Your task to perform on an android device: turn off data saver in the chrome app Image 0: 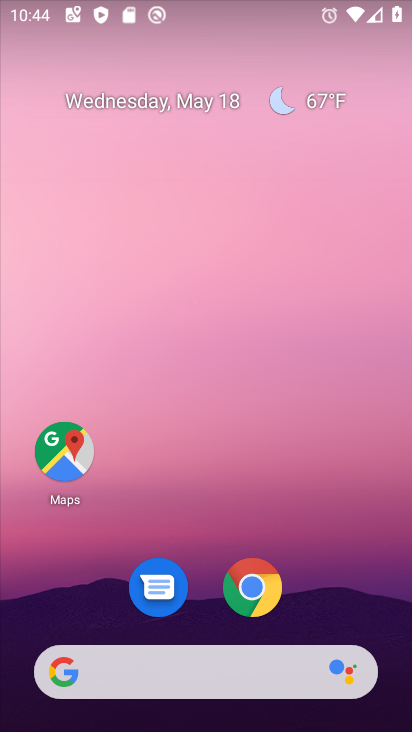
Step 0: click (257, 592)
Your task to perform on an android device: turn off data saver in the chrome app Image 1: 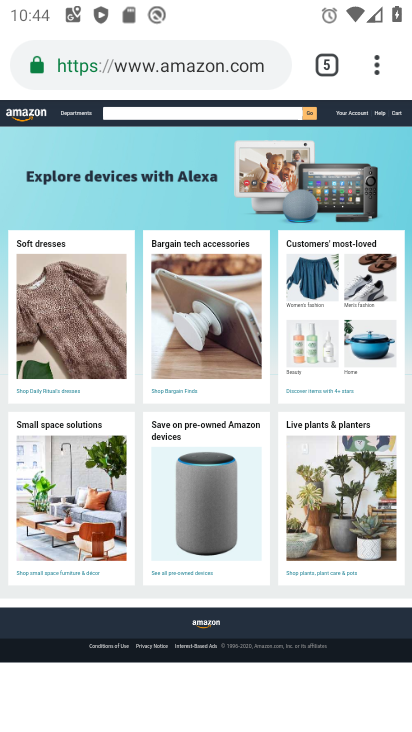
Step 1: click (385, 63)
Your task to perform on an android device: turn off data saver in the chrome app Image 2: 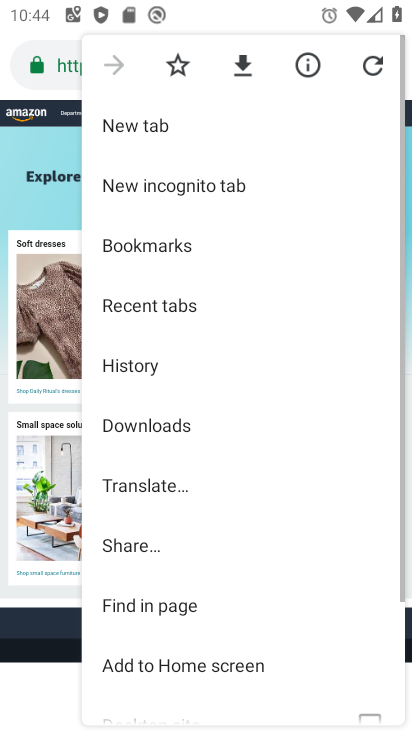
Step 2: drag from (245, 624) to (216, 137)
Your task to perform on an android device: turn off data saver in the chrome app Image 3: 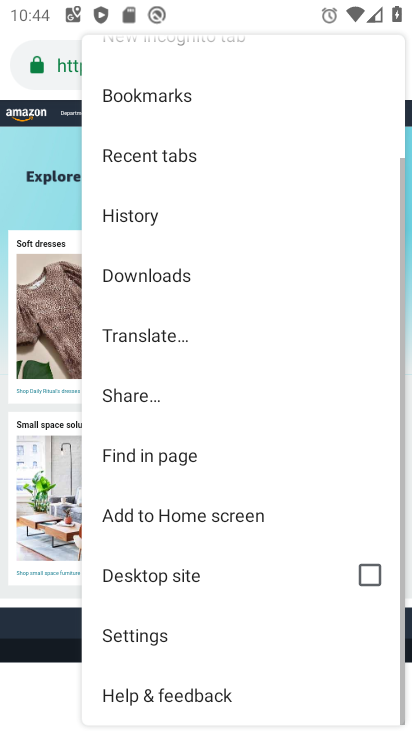
Step 3: click (188, 625)
Your task to perform on an android device: turn off data saver in the chrome app Image 4: 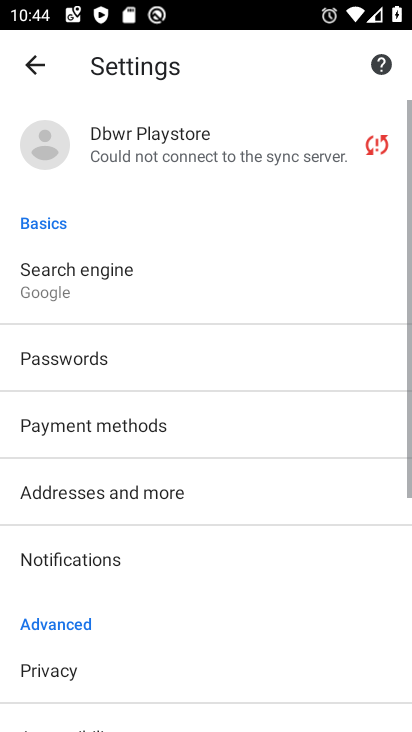
Step 4: drag from (180, 550) to (133, 165)
Your task to perform on an android device: turn off data saver in the chrome app Image 5: 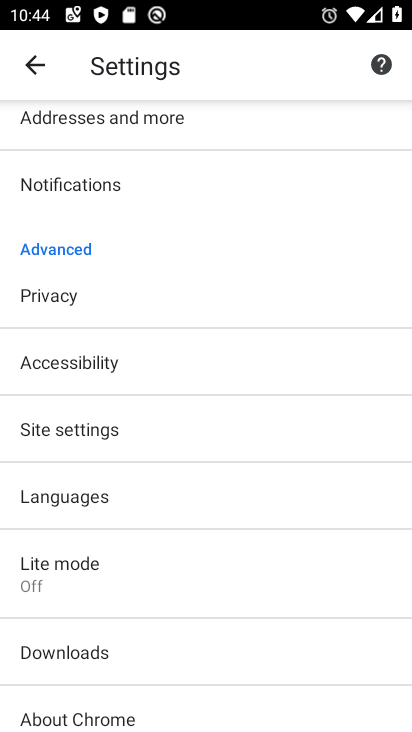
Step 5: click (54, 590)
Your task to perform on an android device: turn off data saver in the chrome app Image 6: 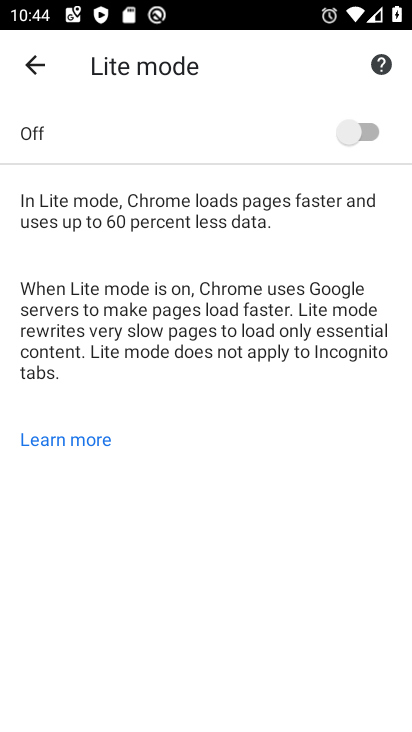
Step 6: task complete